Your task to perform on an android device: What's on my calendar tomorrow? Image 0: 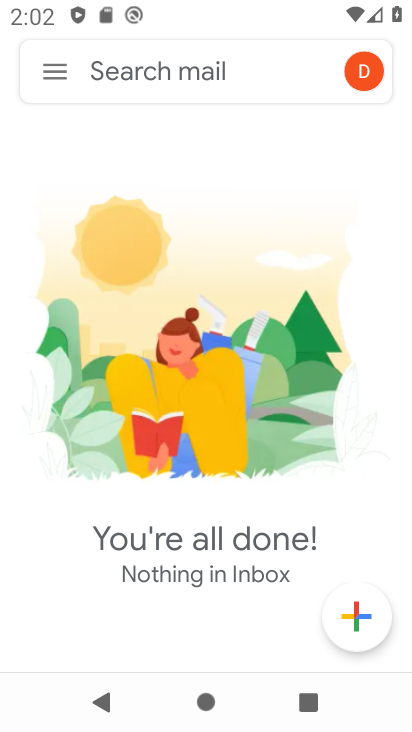
Step 0: press home button
Your task to perform on an android device: What's on my calendar tomorrow? Image 1: 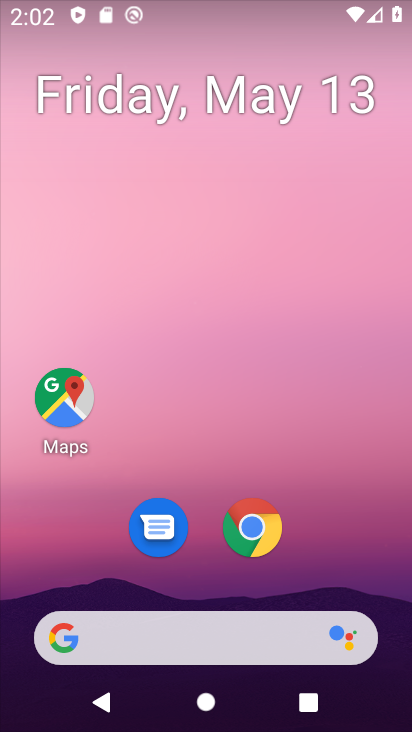
Step 1: click (233, 66)
Your task to perform on an android device: What's on my calendar tomorrow? Image 2: 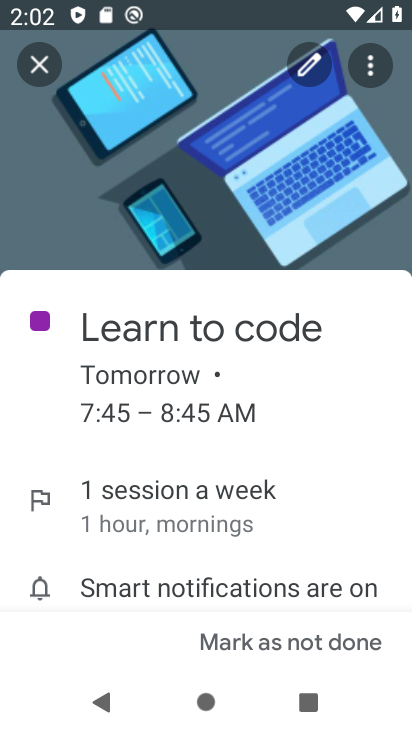
Step 2: press home button
Your task to perform on an android device: What's on my calendar tomorrow? Image 3: 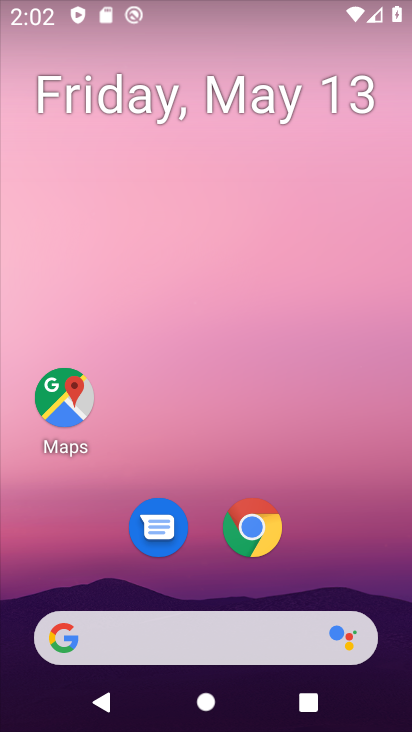
Step 3: click (160, 104)
Your task to perform on an android device: What's on my calendar tomorrow? Image 4: 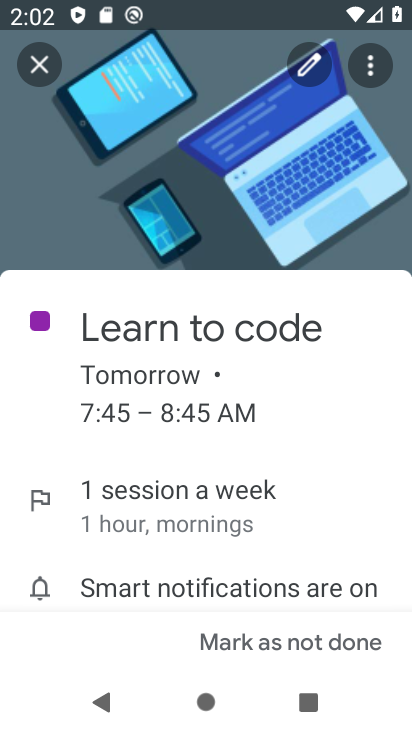
Step 4: click (43, 46)
Your task to perform on an android device: What's on my calendar tomorrow? Image 5: 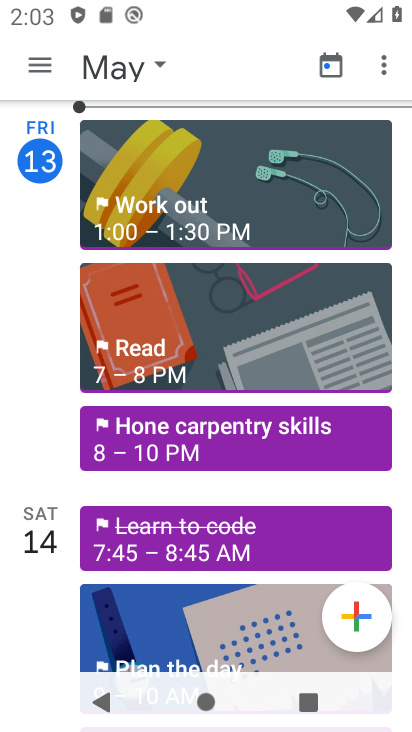
Step 5: task complete